Your task to perform on an android device: What's the weather today? Image 0: 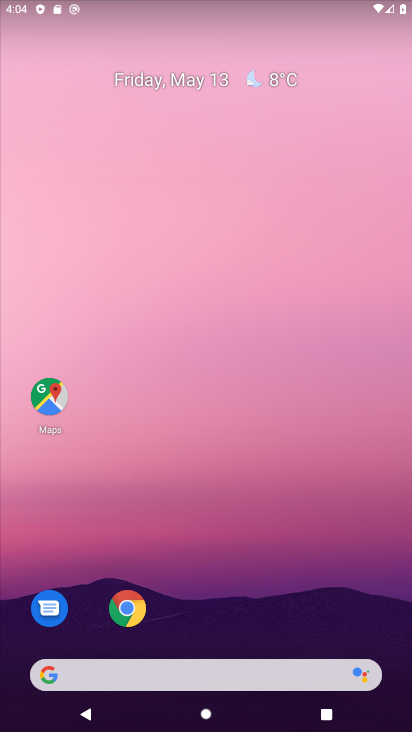
Step 0: click (276, 84)
Your task to perform on an android device: What's the weather today? Image 1: 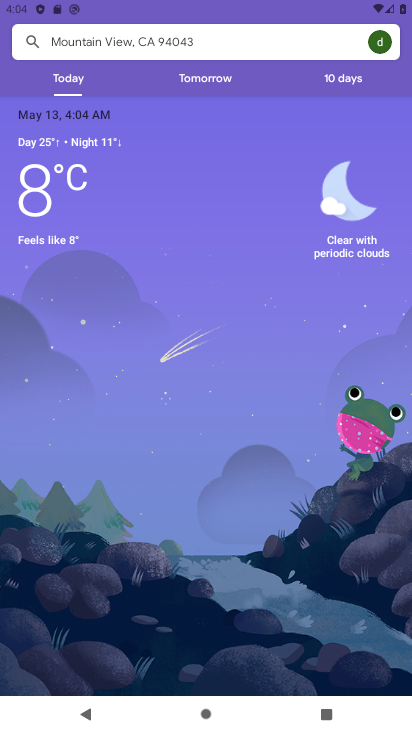
Step 1: task complete